Your task to perform on an android device: Is it going to rain tomorrow? Image 0: 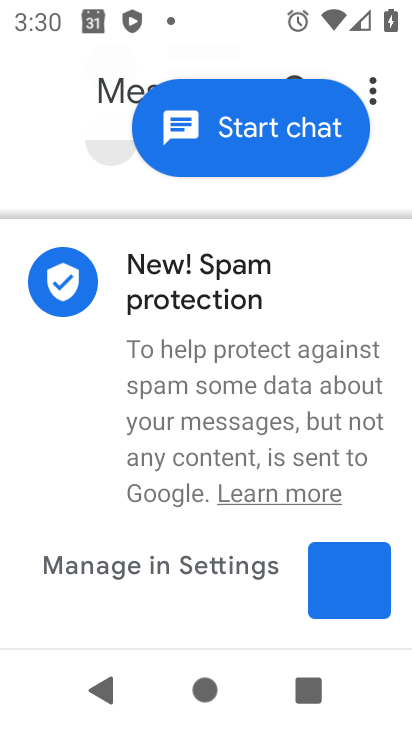
Step 0: press home button
Your task to perform on an android device: Is it going to rain tomorrow? Image 1: 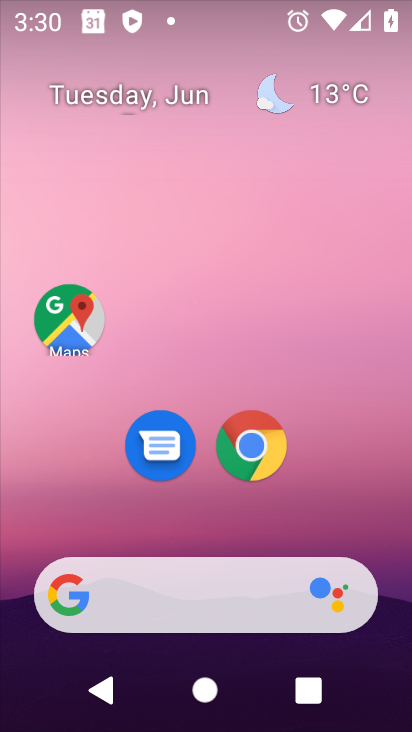
Step 1: click (331, 94)
Your task to perform on an android device: Is it going to rain tomorrow? Image 2: 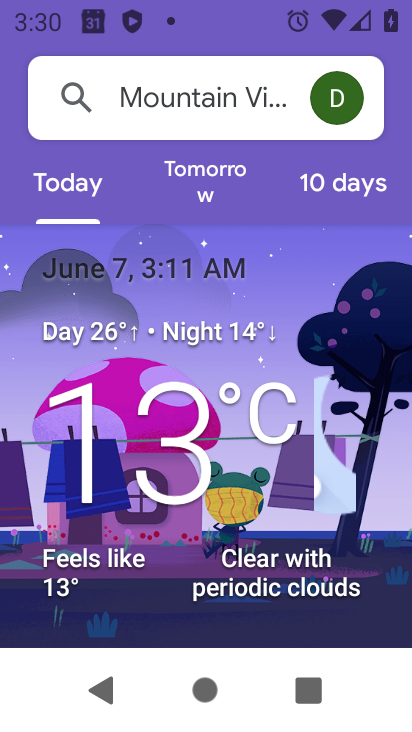
Step 2: click (201, 175)
Your task to perform on an android device: Is it going to rain tomorrow? Image 3: 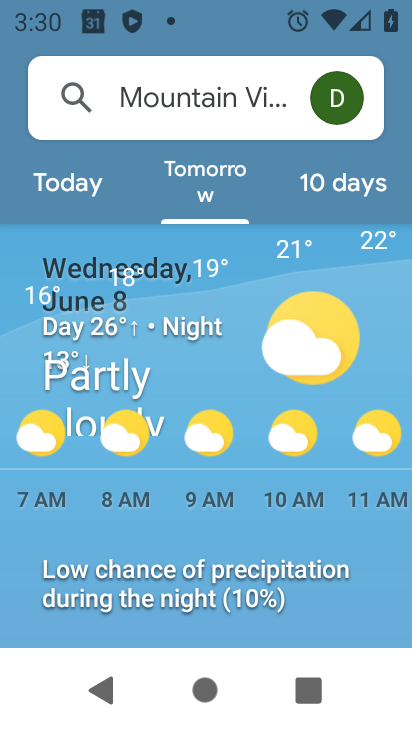
Step 3: task complete